Your task to perform on an android device: Go to wifi settings Image 0: 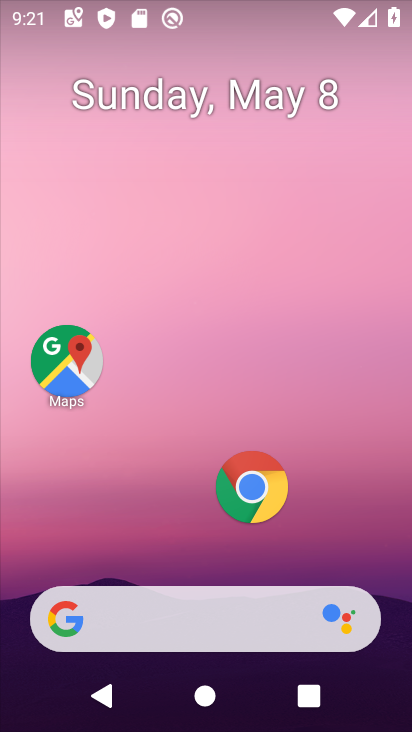
Step 0: drag from (140, 543) to (156, 1)
Your task to perform on an android device: Go to wifi settings Image 1: 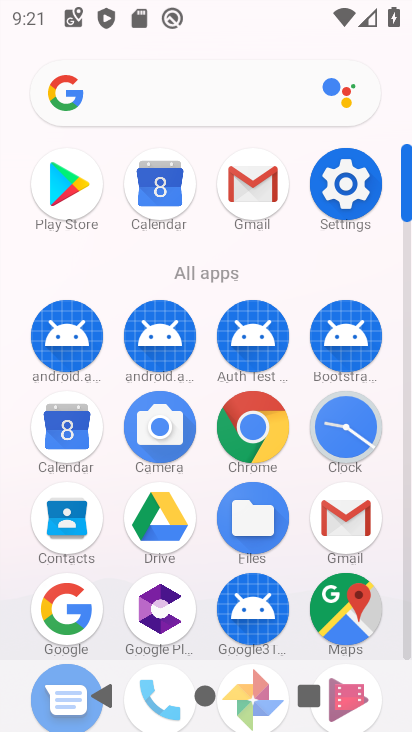
Step 1: click (338, 180)
Your task to perform on an android device: Go to wifi settings Image 2: 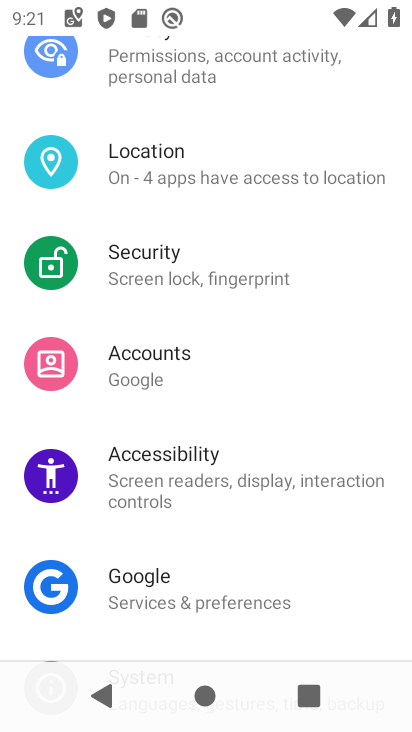
Step 2: drag from (250, 128) to (219, 481)
Your task to perform on an android device: Go to wifi settings Image 3: 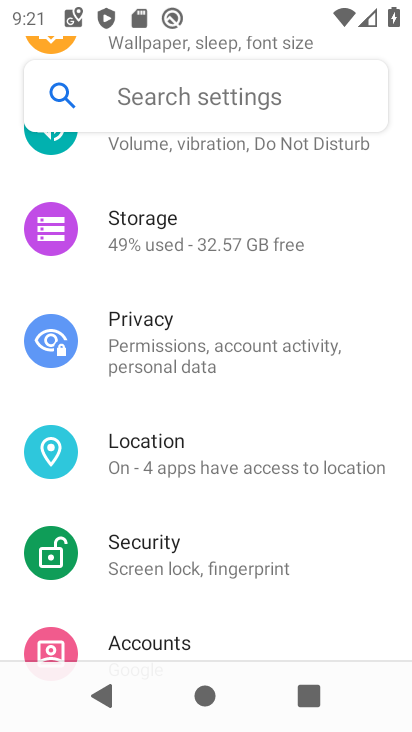
Step 3: drag from (252, 234) to (257, 563)
Your task to perform on an android device: Go to wifi settings Image 4: 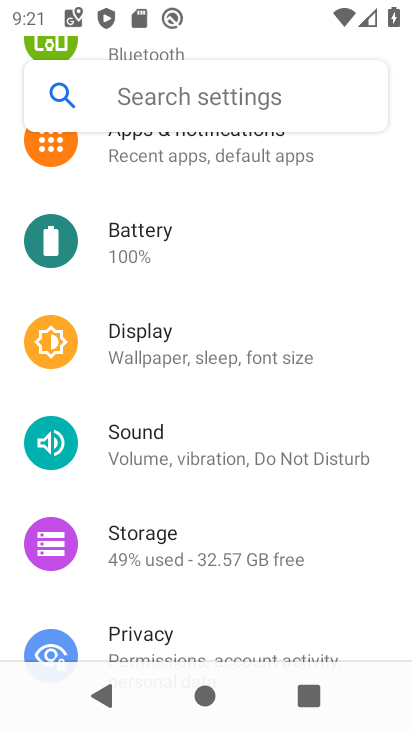
Step 4: drag from (238, 241) to (240, 574)
Your task to perform on an android device: Go to wifi settings Image 5: 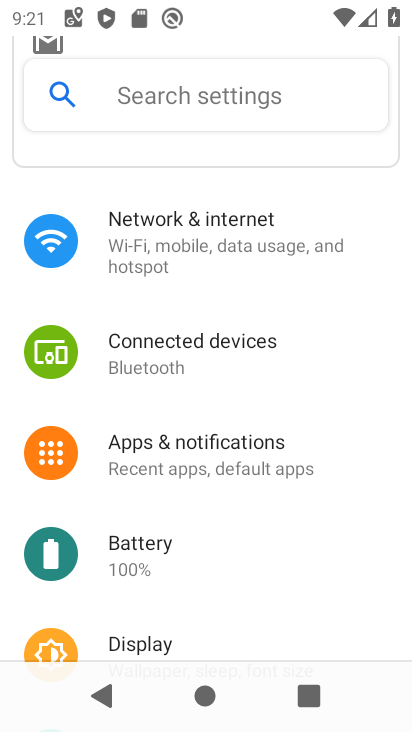
Step 5: click (230, 238)
Your task to perform on an android device: Go to wifi settings Image 6: 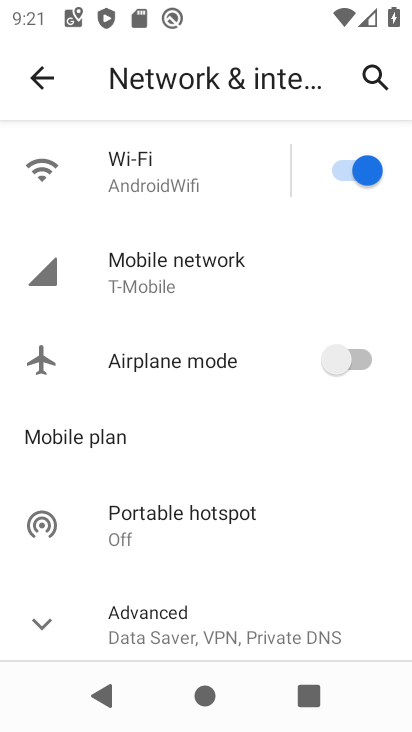
Step 6: click (173, 168)
Your task to perform on an android device: Go to wifi settings Image 7: 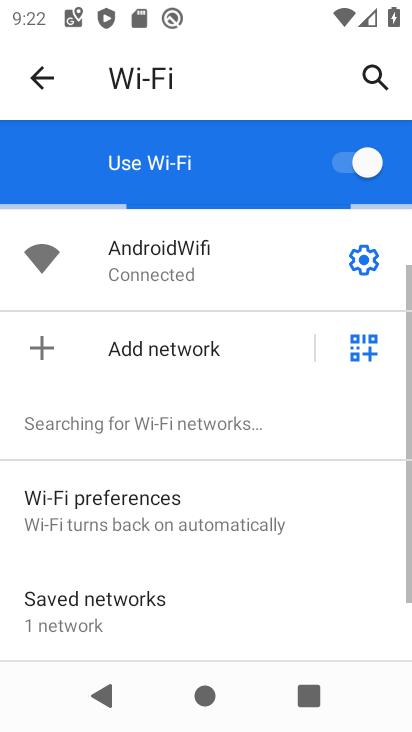
Step 7: task complete